Your task to perform on an android device: Open display settings Image 0: 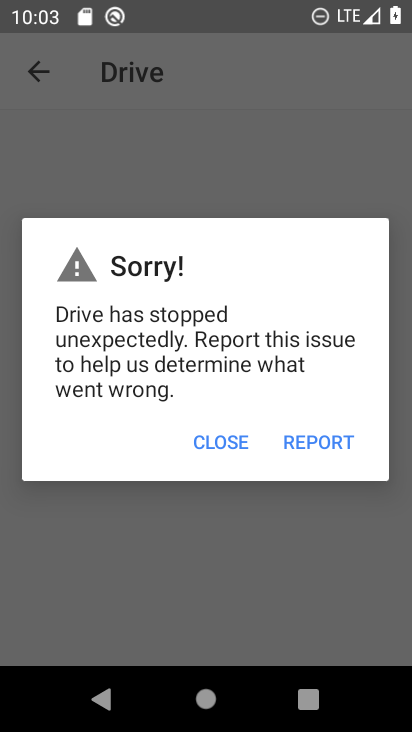
Step 0: drag from (148, 683) to (230, 49)
Your task to perform on an android device: Open display settings Image 1: 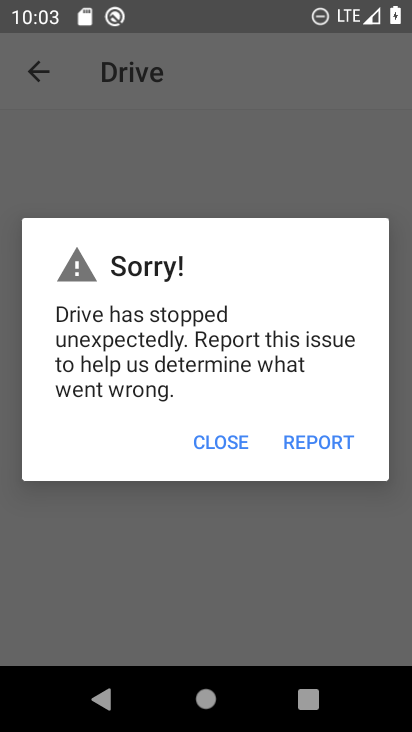
Step 1: press home button
Your task to perform on an android device: Open display settings Image 2: 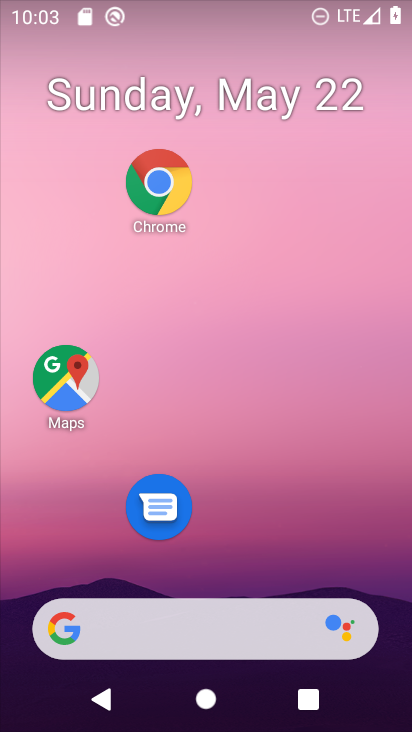
Step 2: drag from (265, 651) to (323, 137)
Your task to perform on an android device: Open display settings Image 3: 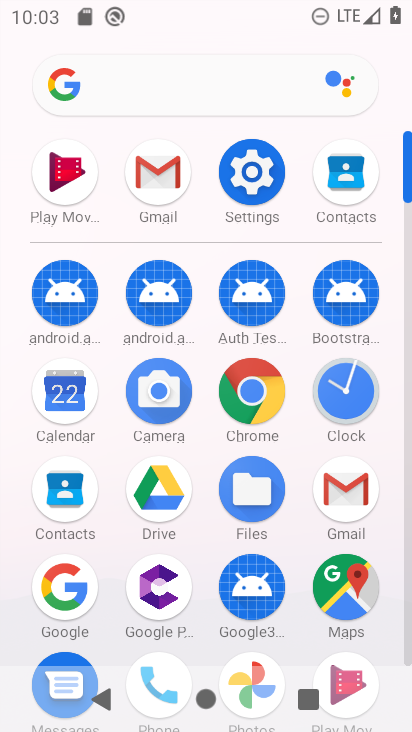
Step 3: click (239, 171)
Your task to perform on an android device: Open display settings Image 4: 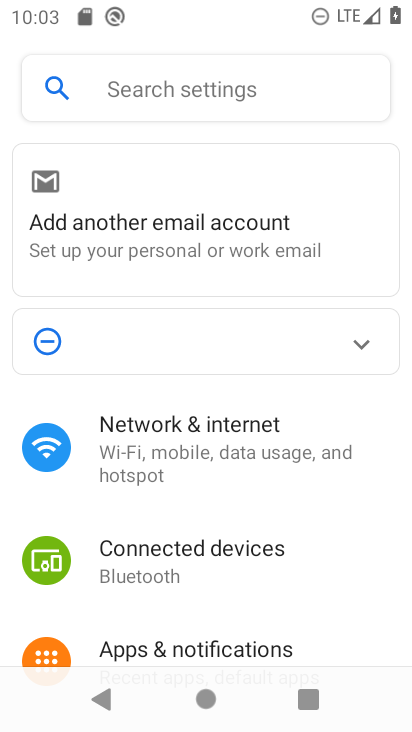
Step 4: drag from (289, 487) to (389, 0)
Your task to perform on an android device: Open display settings Image 5: 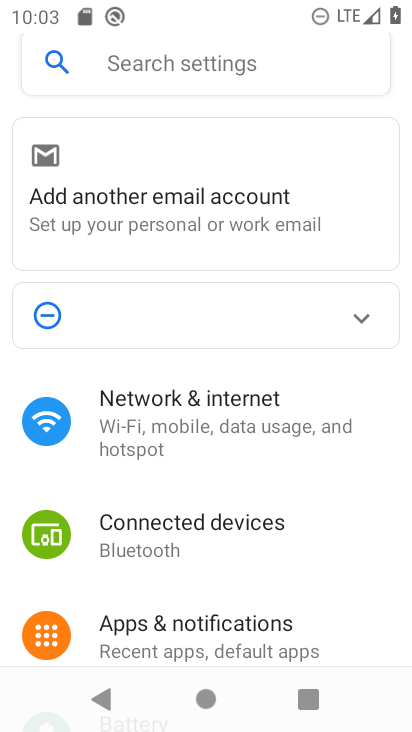
Step 5: drag from (261, 565) to (307, 187)
Your task to perform on an android device: Open display settings Image 6: 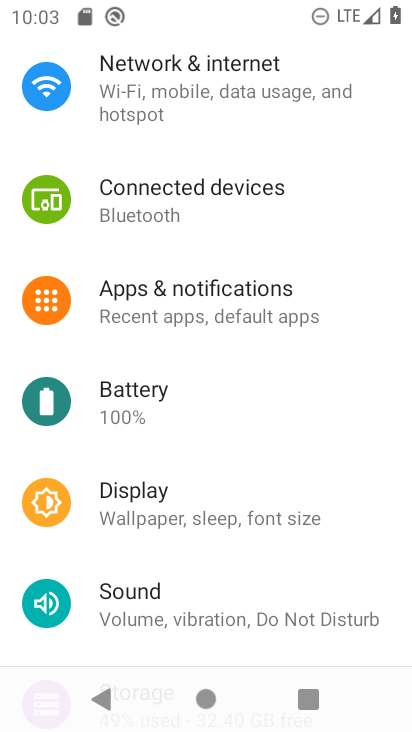
Step 6: click (263, 505)
Your task to perform on an android device: Open display settings Image 7: 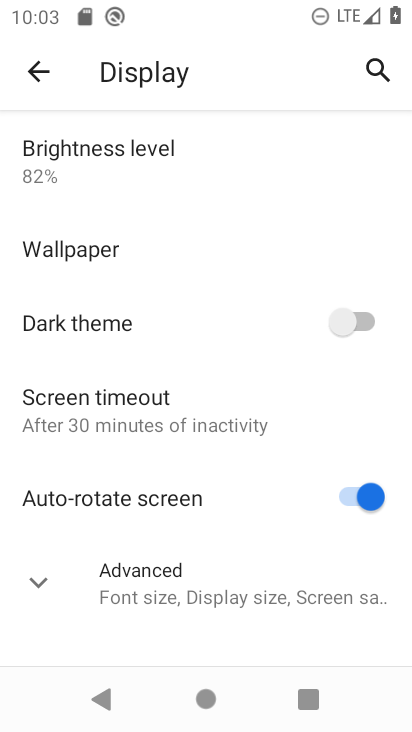
Step 7: task complete